Your task to perform on an android device: Is it going to rain today? Image 0: 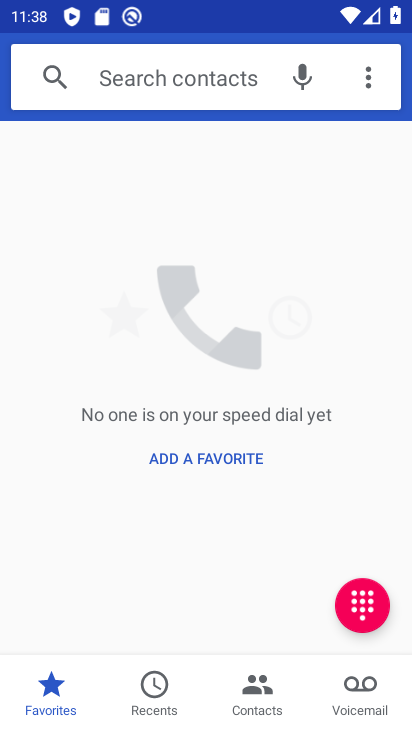
Step 0: press home button
Your task to perform on an android device: Is it going to rain today? Image 1: 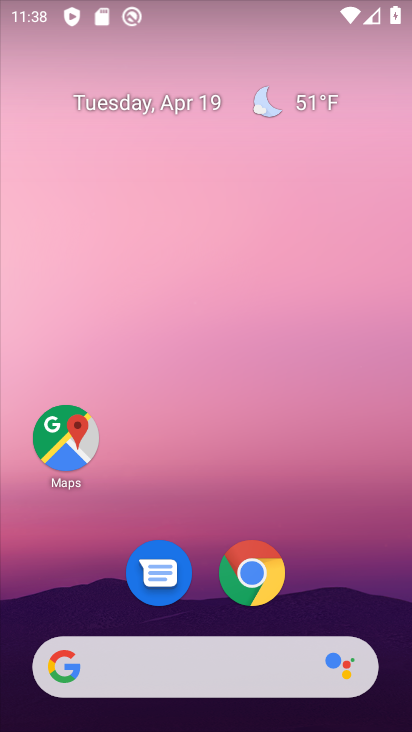
Step 1: click (228, 588)
Your task to perform on an android device: Is it going to rain today? Image 2: 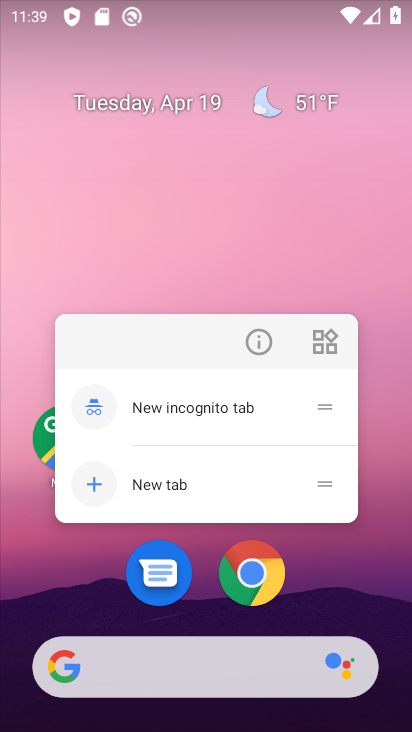
Step 2: click (261, 591)
Your task to perform on an android device: Is it going to rain today? Image 3: 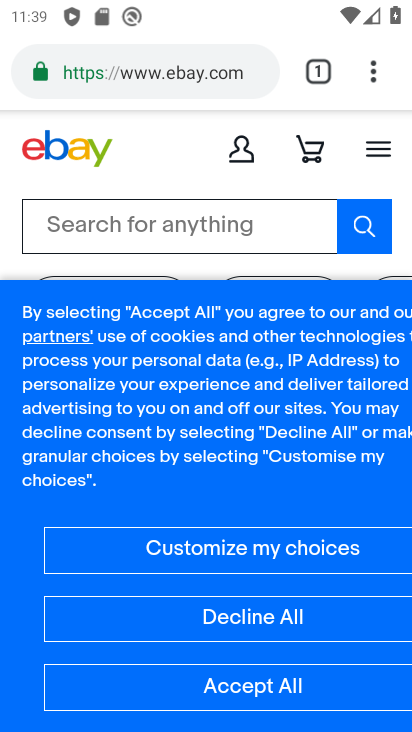
Step 3: click (163, 80)
Your task to perform on an android device: Is it going to rain today? Image 4: 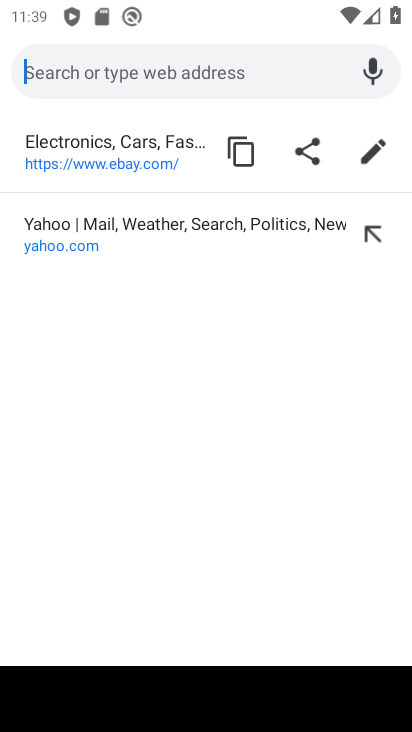
Step 4: type "is it going to rain today"
Your task to perform on an android device: Is it going to rain today? Image 5: 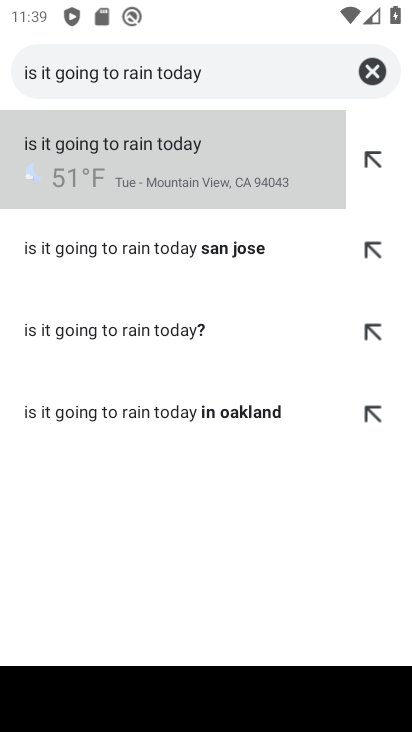
Step 5: click (160, 179)
Your task to perform on an android device: Is it going to rain today? Image 6: 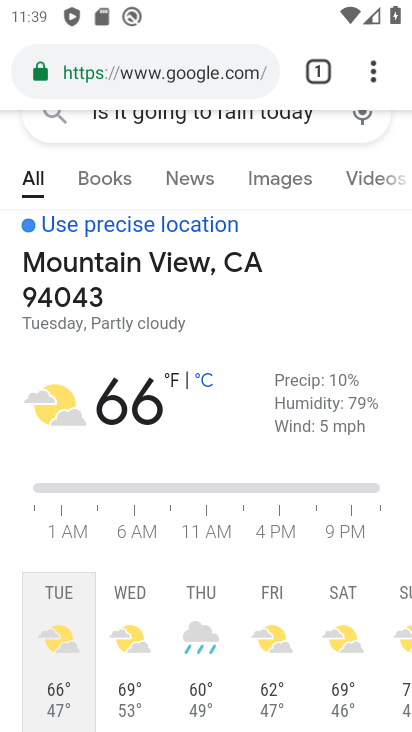
Step 6: task complete